Your task to perform on an android device: turn off javascript in the chrome app Image 0: 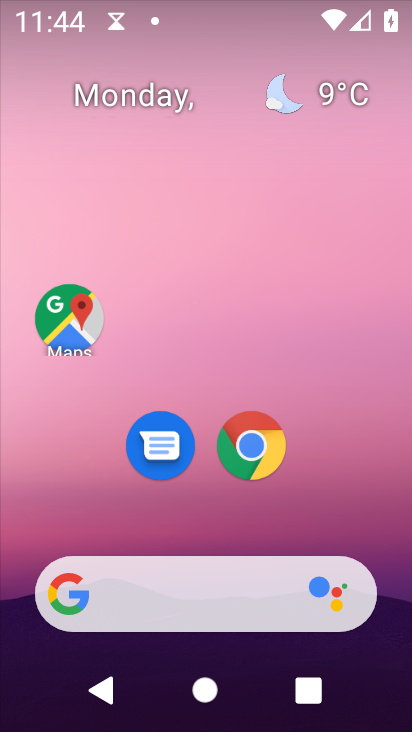
Step 0: drag from (339, 491) to (248, 52)
Your task to perform on an android device: turn off javascript in the chrome app Image 1: 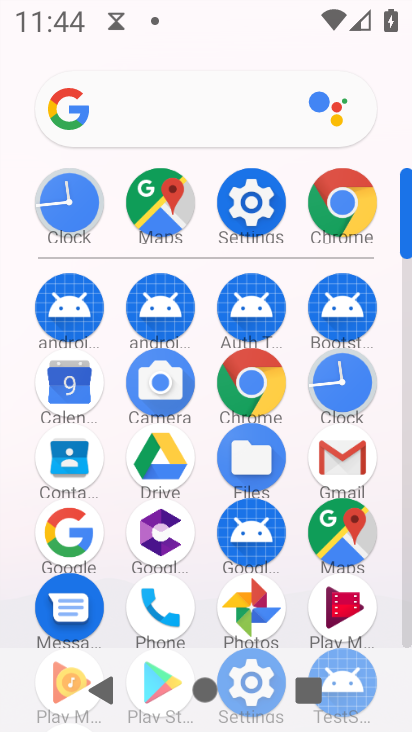
Step 1: click (262, 384)
Your task to perform on an android device: turn off javascript in the chrome app Image 2: 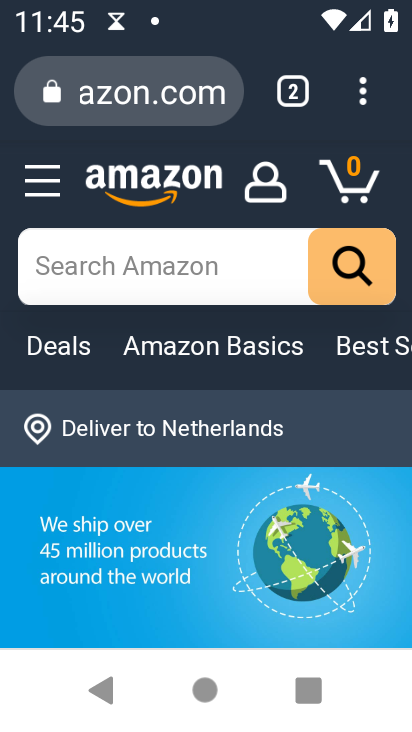
Step 2: drag from (369, 95) to (182, 485)
Your task to perform on an android device: turn off javascript in the chrome app Image 3: 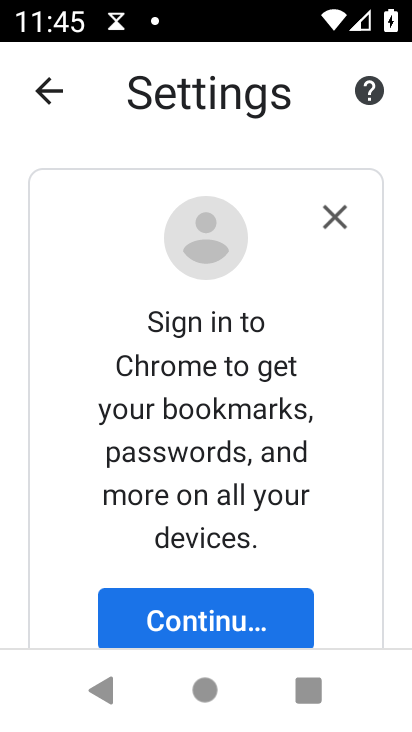
Step 3: drag from (208, 559) to (286, 23)
Your task to perform on an android device: turn off javascript in the chrome app Image 4: 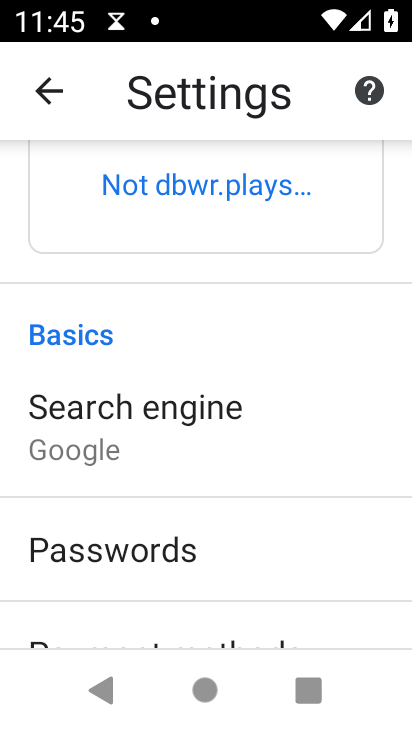
Step 4: drag from (283, 633) to (318, 155)
Your task to perform on an android device: turn off javascript in the chrome app Image 5: 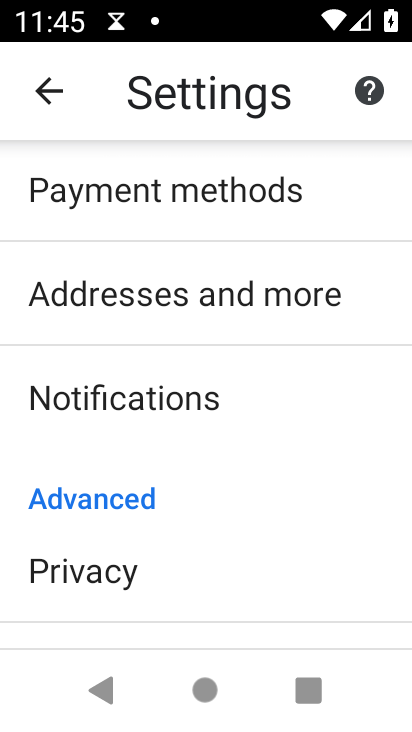
Step 5: drag from (230, 634) to (247, 345)
Your task to perform on an android device: turn off javascript in the chrome app Image 6: 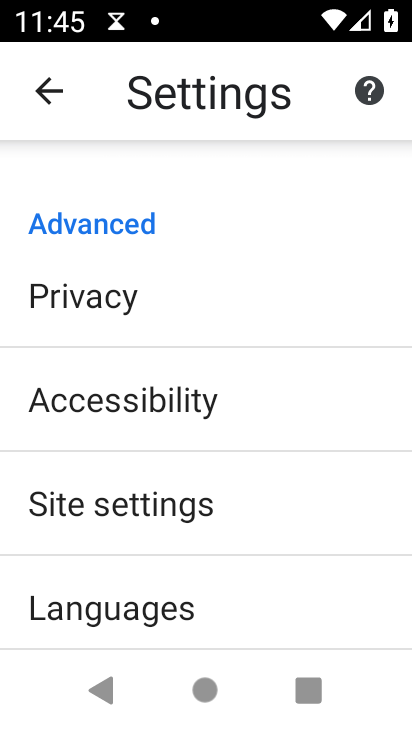
Step 6: click (205, 505)
Your task to perform on an android device: turn off javascript in the chrome app Image 7: 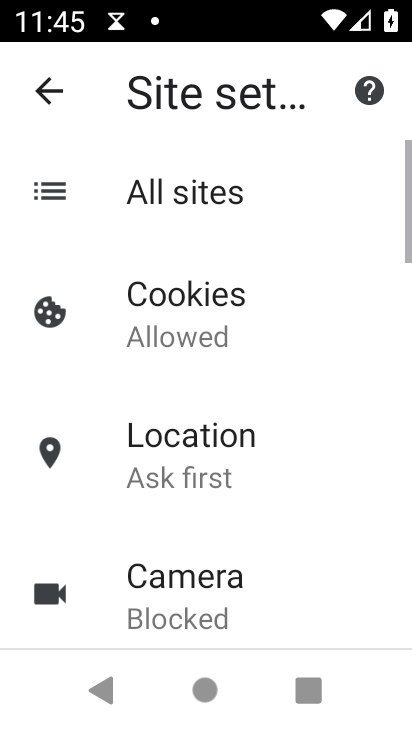
Step 7: drag from (255, 616) to (320, 138)
Your task to perform on an android device: turn off javascript in the chrome app Image 8: 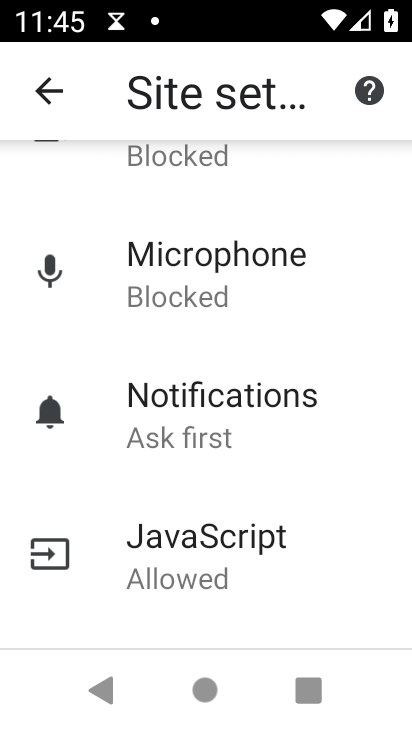
Step 8: click (243, 532)
Your task to perform on an android device: turn off javascript in the chrome app Image 9: 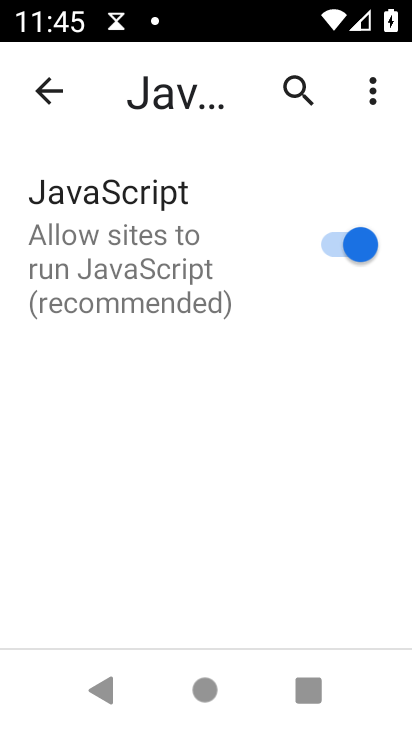
Step 9: click (335, 243)
Your task to perform on an android device: turn off javascript in the chrome app Image 10: 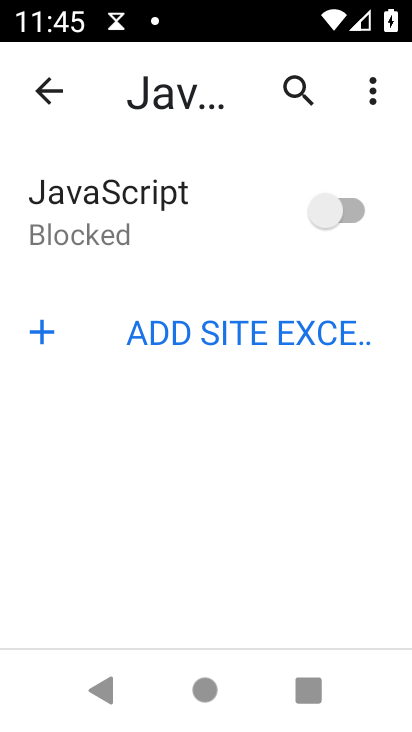
Step 10: task complete